Your task to perform on an android device: Search for 8K TVs on Best Buy. Image 0: 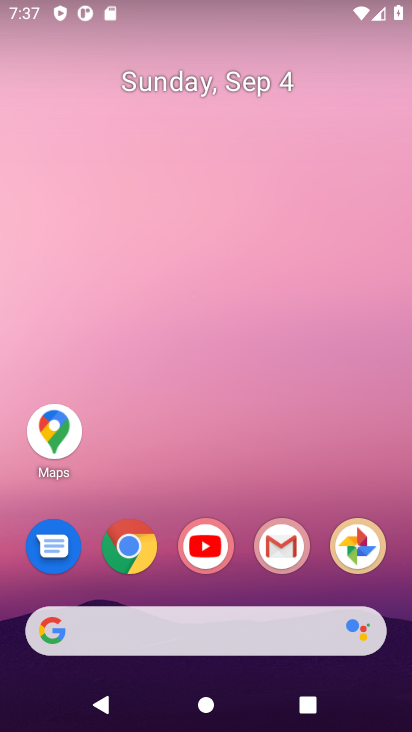
Step 0: click (132, 545)
Your task to perform on an android device: Search for 8K TVs on Best Buy. Image 1: 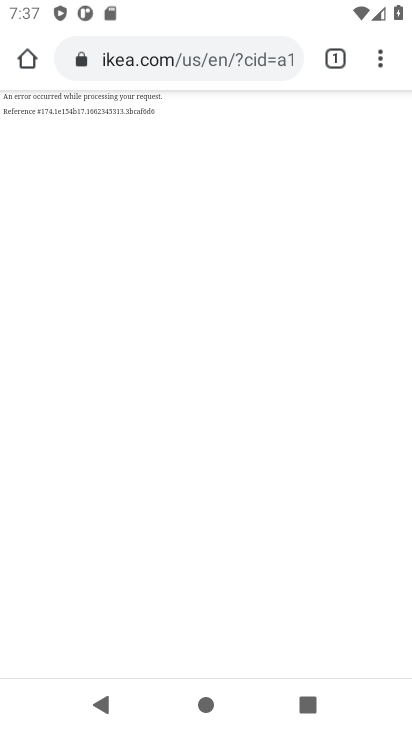
Step 1: click (173, 64)
Your task to perform on an android device: Search for 8K TVs on Best Buy. Image 2: 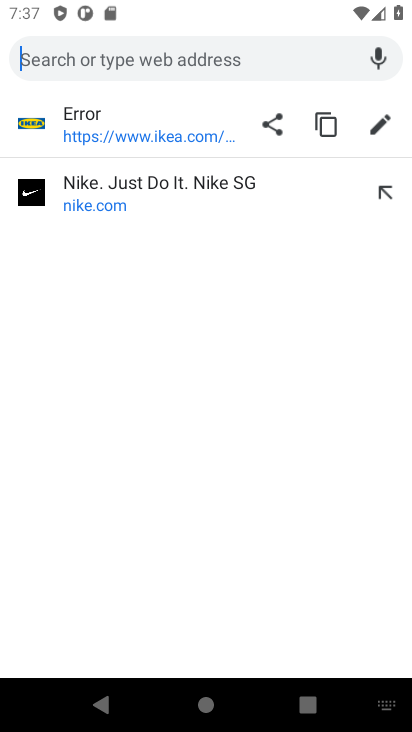
Step 2: type "best buy"
Your task to perform on an android device: Search for 8K TVs on Best Buy. Image 3: 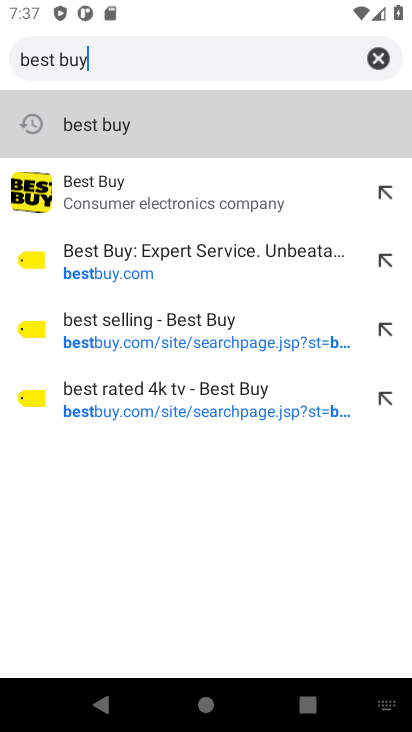
Step 3: click (84, 189)
Your task to perform on an android device: Search for 8K TVs on Best Buy. Image 4: 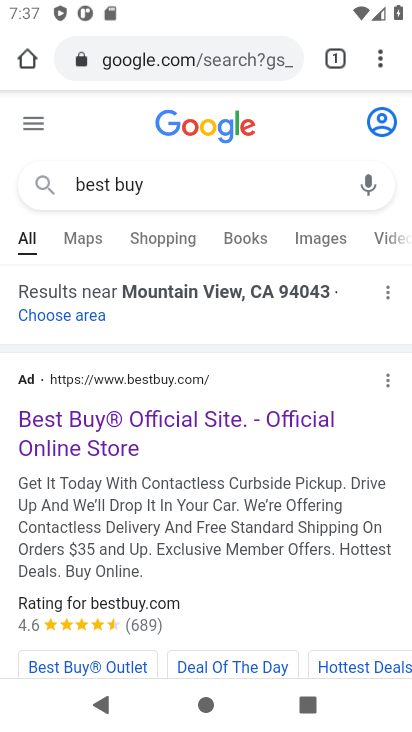
Step 4: click (65, 429)
Your task to perform on an android device: Search for 8K TVs on Best Buy. Image 5: 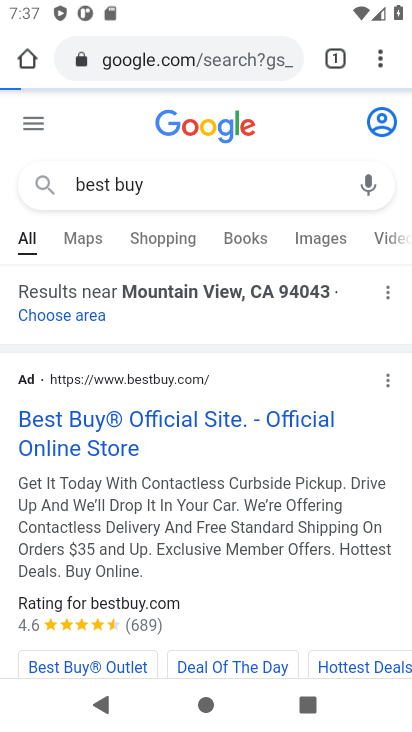
Step 5: click (53, 418)
Your task to perform on an android device: Search for 8K TVs on Best Buy. Image 6: 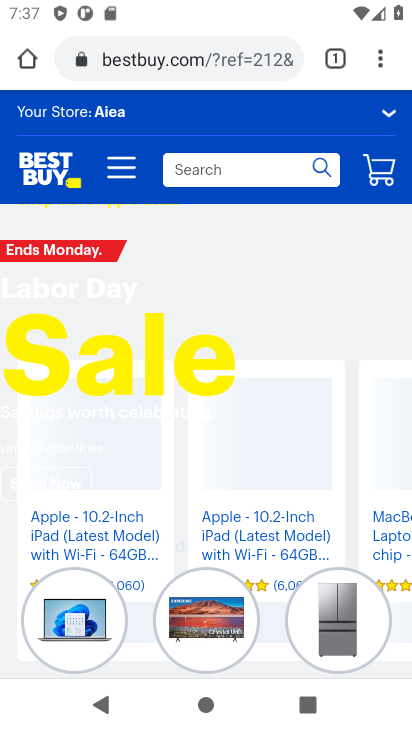
Step 6: click (201, 166)
Your task to perform on an android device: Search for 8K TVs on Best Buy. Image 7: 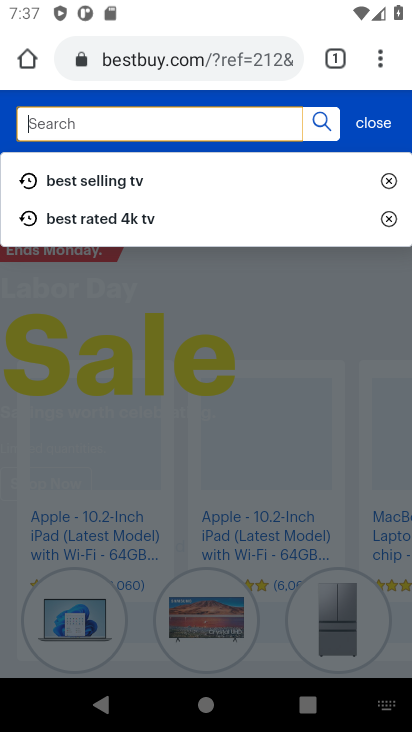
Step 7: type "8k TVs"
Your task to perform on an android device: Search for 8K TVs on Best Buy. Image 8: 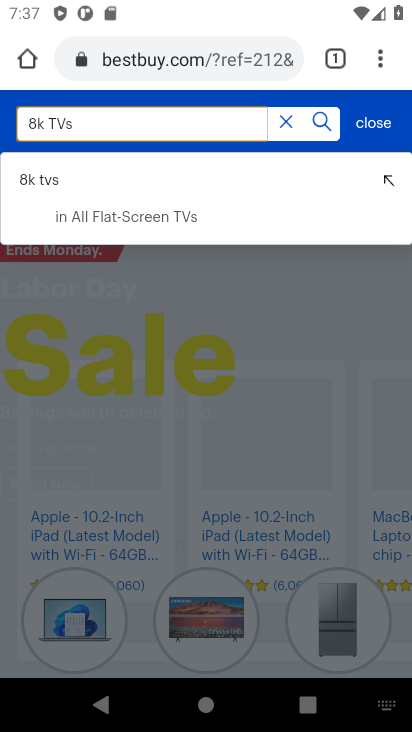
Step 8: click (105, 221)
Your task to perform on an android device: Search for 8K TVs on Best Buy. Image 9: 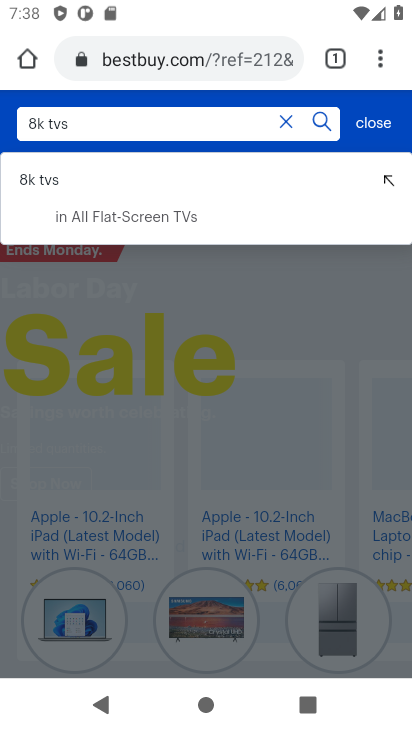
Step 9: click (43, 180)
Your task to perform on an android device: Search for 8K TVs on Best Buy. Image 10: 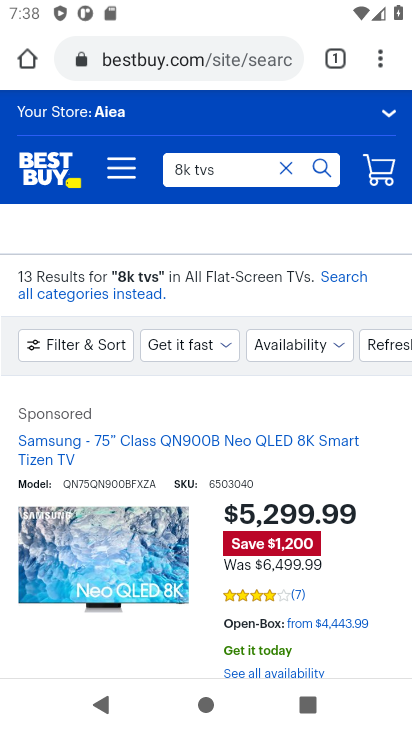
Step 10: task complete